Your task to perform on an android device: turn on sleep mode Image 0: 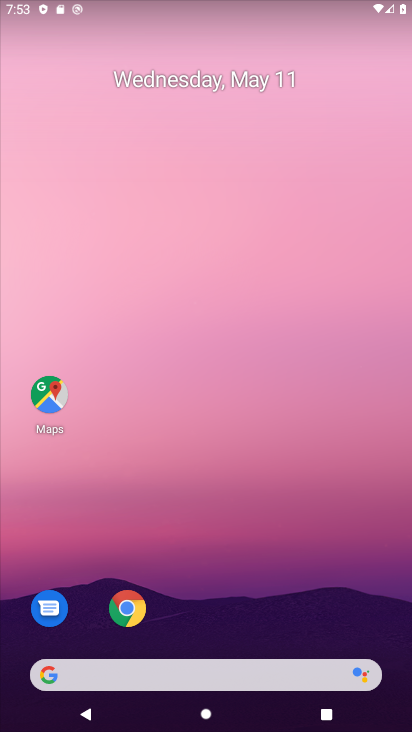
Step 0: drag from (229, 599) to (206, 24)
Your task to perform on an android device: turn on sleep mode Image 1: 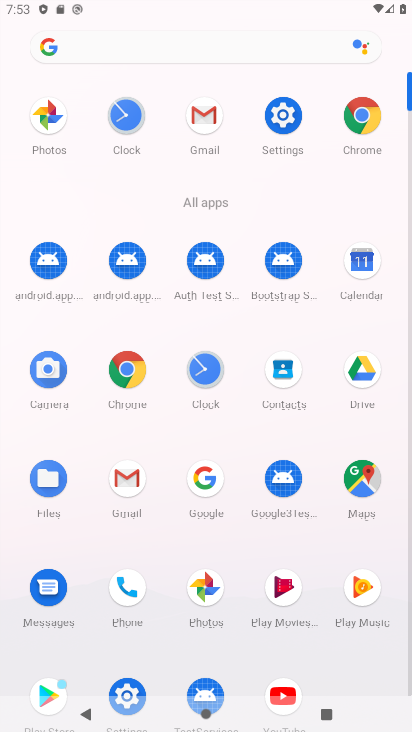
Step 1: click (301, 128)
Your task to perform on an android device: turn on sleep mode Image 2: 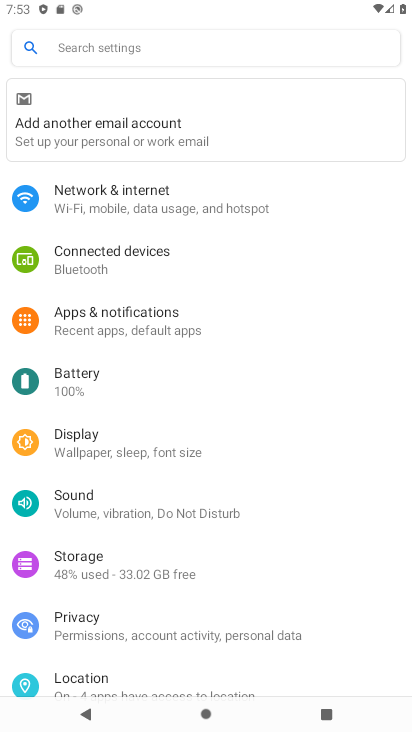
Step 2: click (209, 431)
Your task to perform on an android device: turn on sleep mode Image 3: 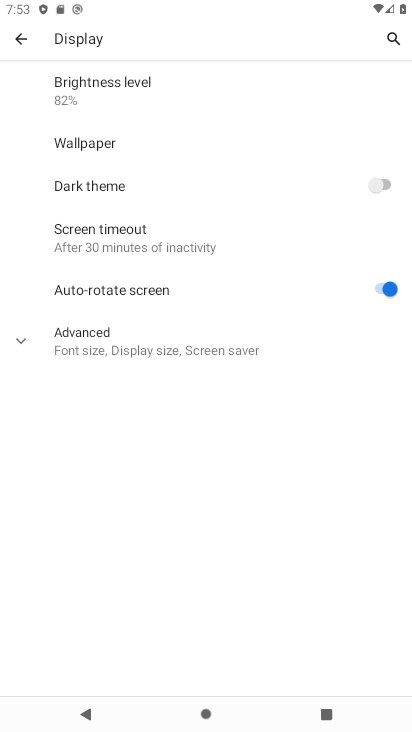
Step 3: click (236, 243)
Your task to perform on an android device: turn on sleep mode Image 4: 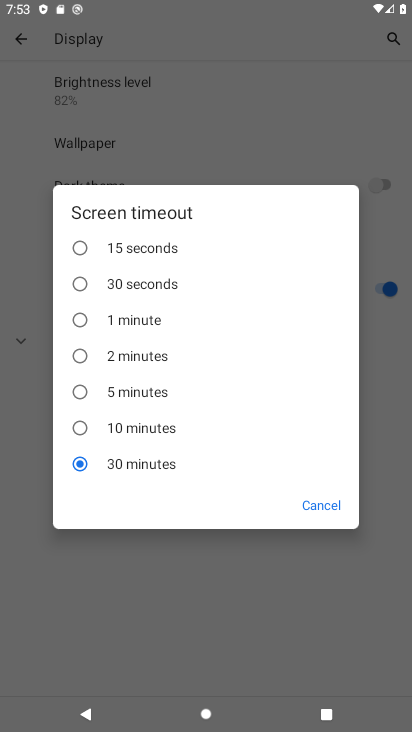
Step 4: click (135, 314)
Your task to perform on an android device: turn on sleep mode Image 5: 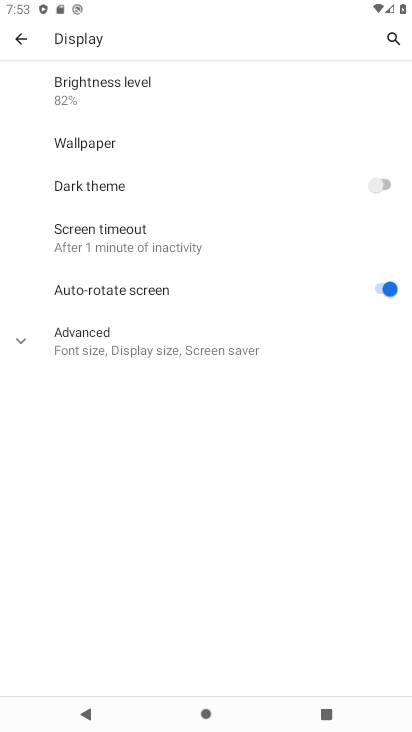
Step 5: task complete